Your task to perform on an android device: empty trash in google photos Image 0: 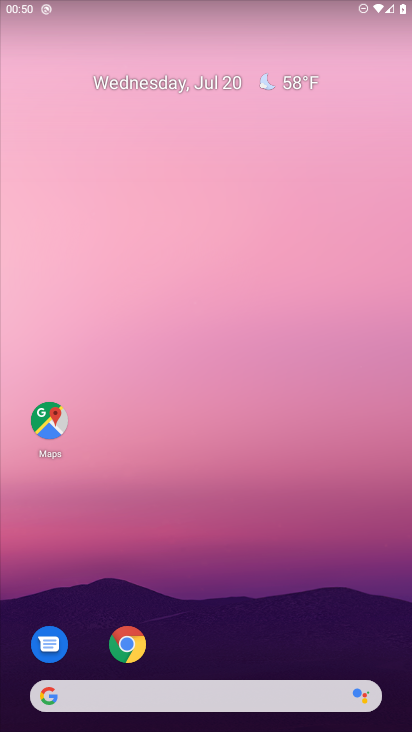
Step 0: drag from (17, 691) to (177, 70)
Your task to perform on an android device: empty trash in google photos Image 1: 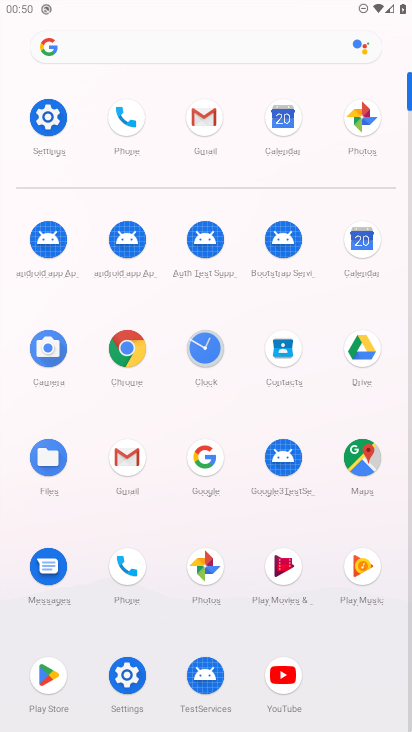
Step 1: click (198, 584)
Your task to perform on an android device: empty trash in google photos Image 2: 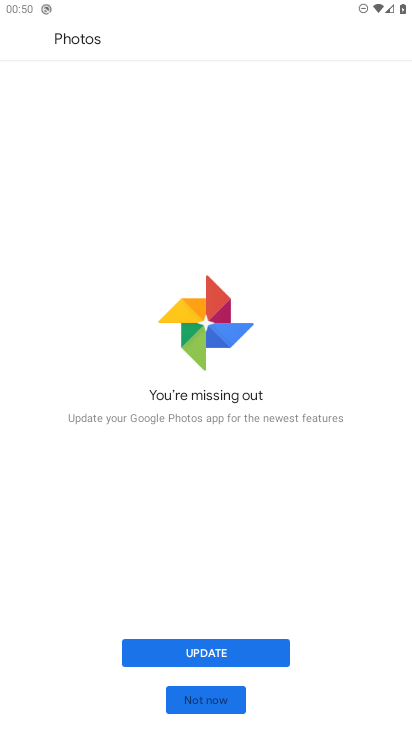
Step 2: click (196, 656)
Your task to perform on an android device: empty trash in google photos Image 3: 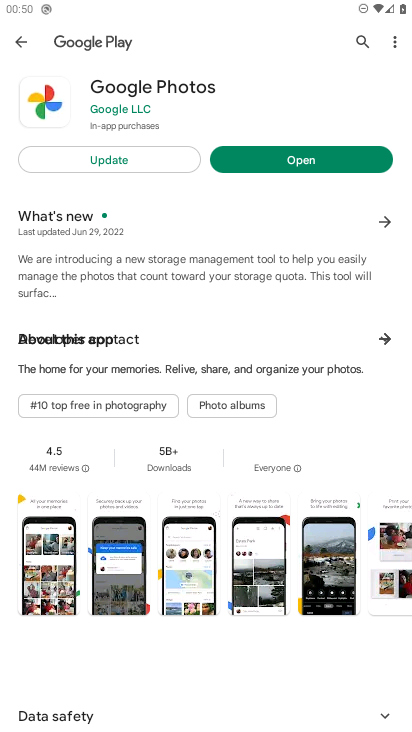
Step 3: click (313, 162)
Your task to perform on an android device: empty trash in google photos Image 4: 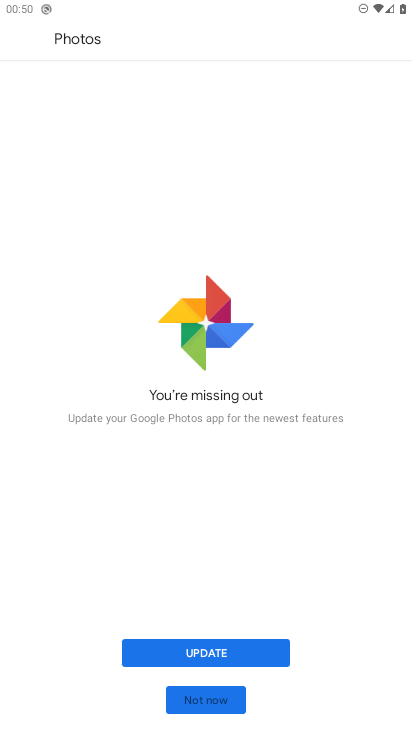
Step 4: click (195, 699)
Your task to perform on an android device: empty trash in google photos Image 5: 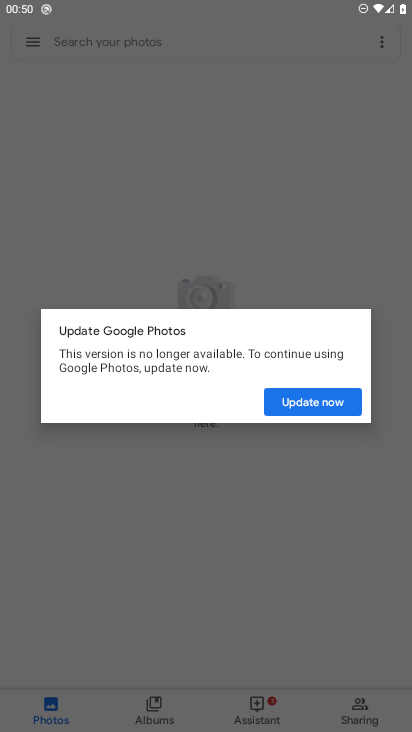
Step 5: click (306, 404)
Your task to perform on an android device: empty trash in google photos Image 6: 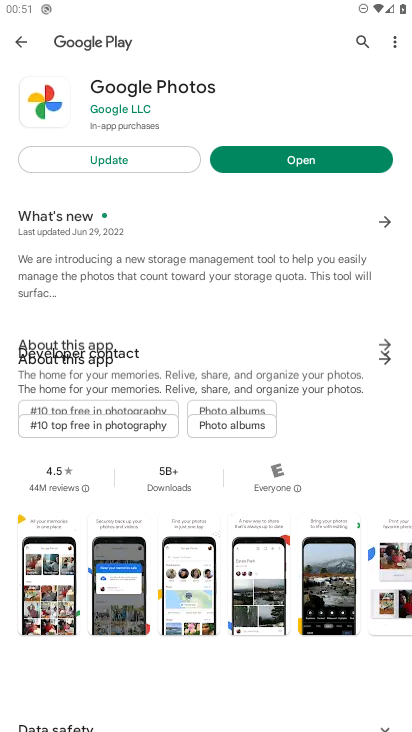
Step 6: click (236, 153)
Your task to perform on an android device: empty trash in google photos Image 7: 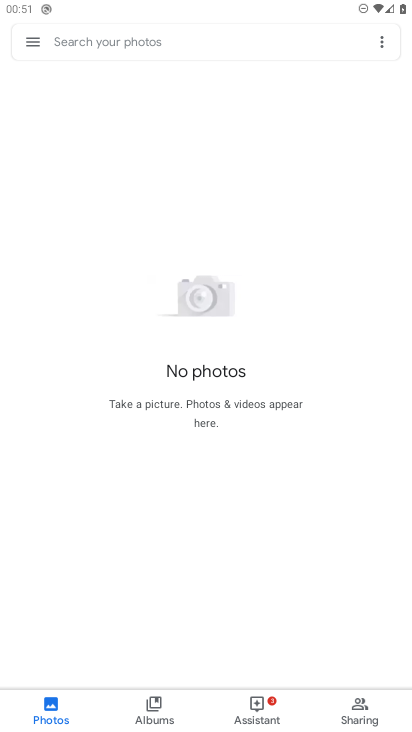
Step 7: click (24, 43)
Your task to perform on an android device: empty trash in google photos Image 8: 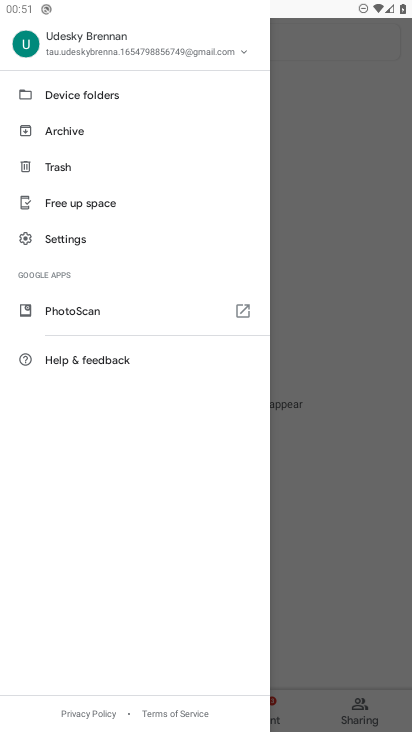
Step 8: click (68, 167)
Your task to perform on an android device: empty trash in google photos Image 9: 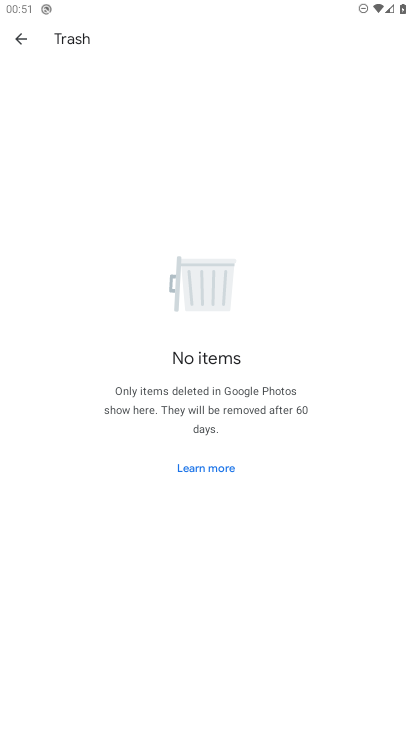
Step 9: task complete